Your task to perform on an android device: Search for razer deathadder on amazon.com, select the first entry, and add it to the cart. Image 0: 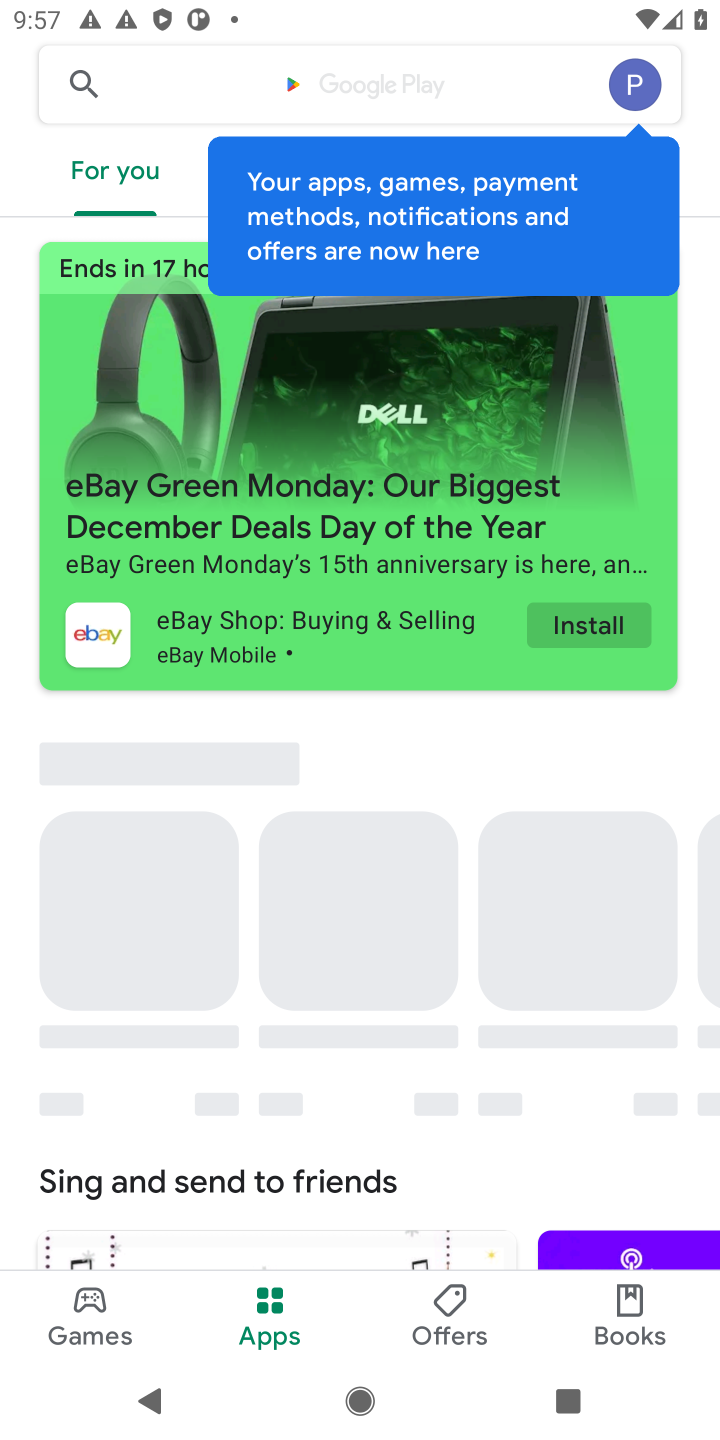
Step 0: press home button
Your task to perform on an android device: Search for razer deathadder on amazon.com, select the first entry, and add it to the cart. Image 1: 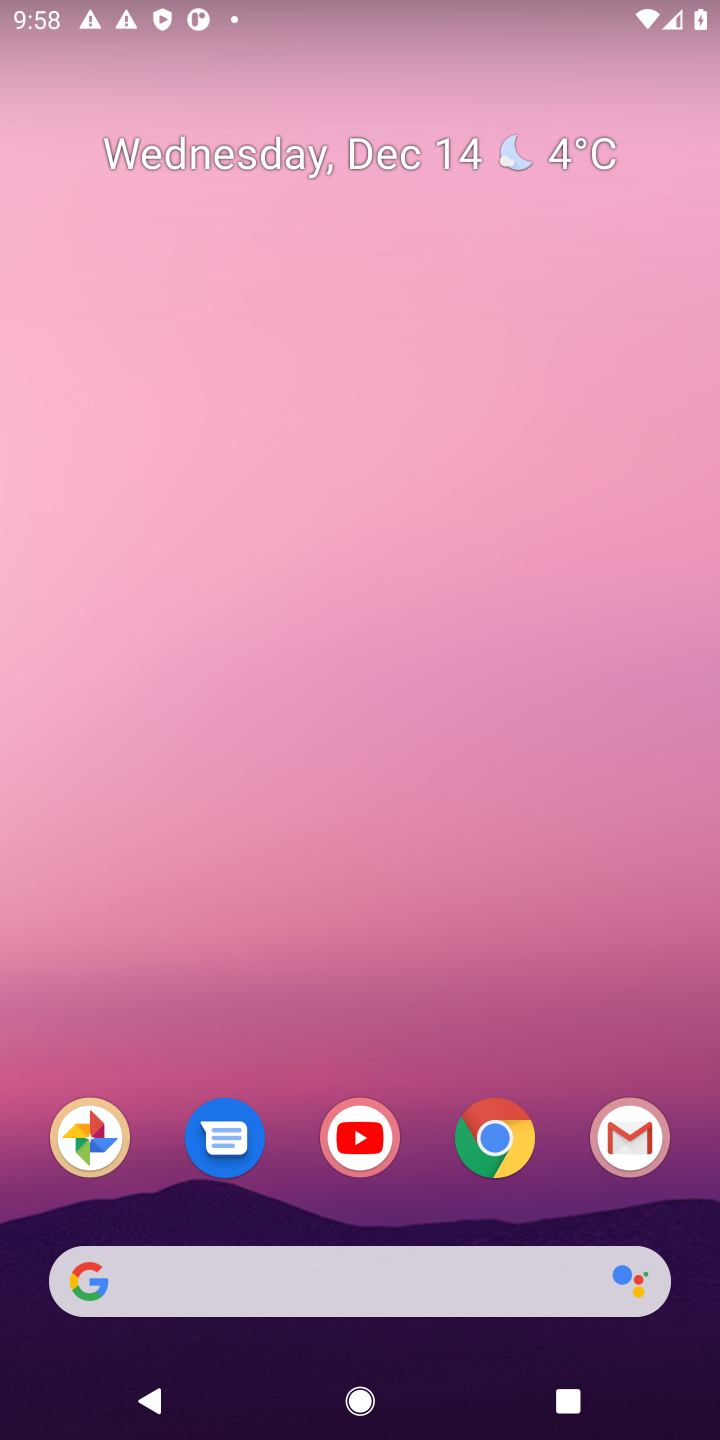
Step 1: click (483, 1143)
Your task to perform on an android device: Search for razer deathadder on amazon.com, select the first entry, and add it to the cart. Image 2: 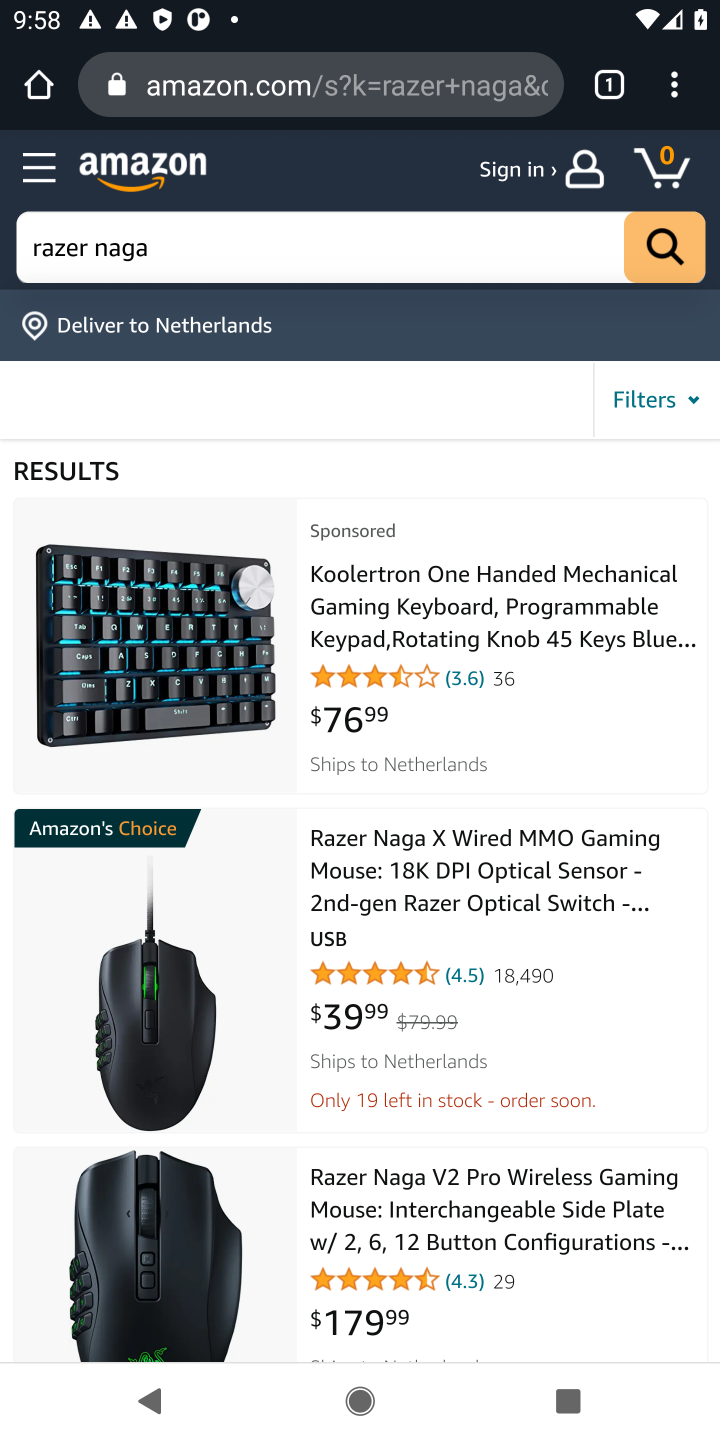
Step 2: click (165, 254)
Your task to perform on an android device: Search for razer deathadder on amazon.com, select the first entry, and add it to the cart. Image 3: 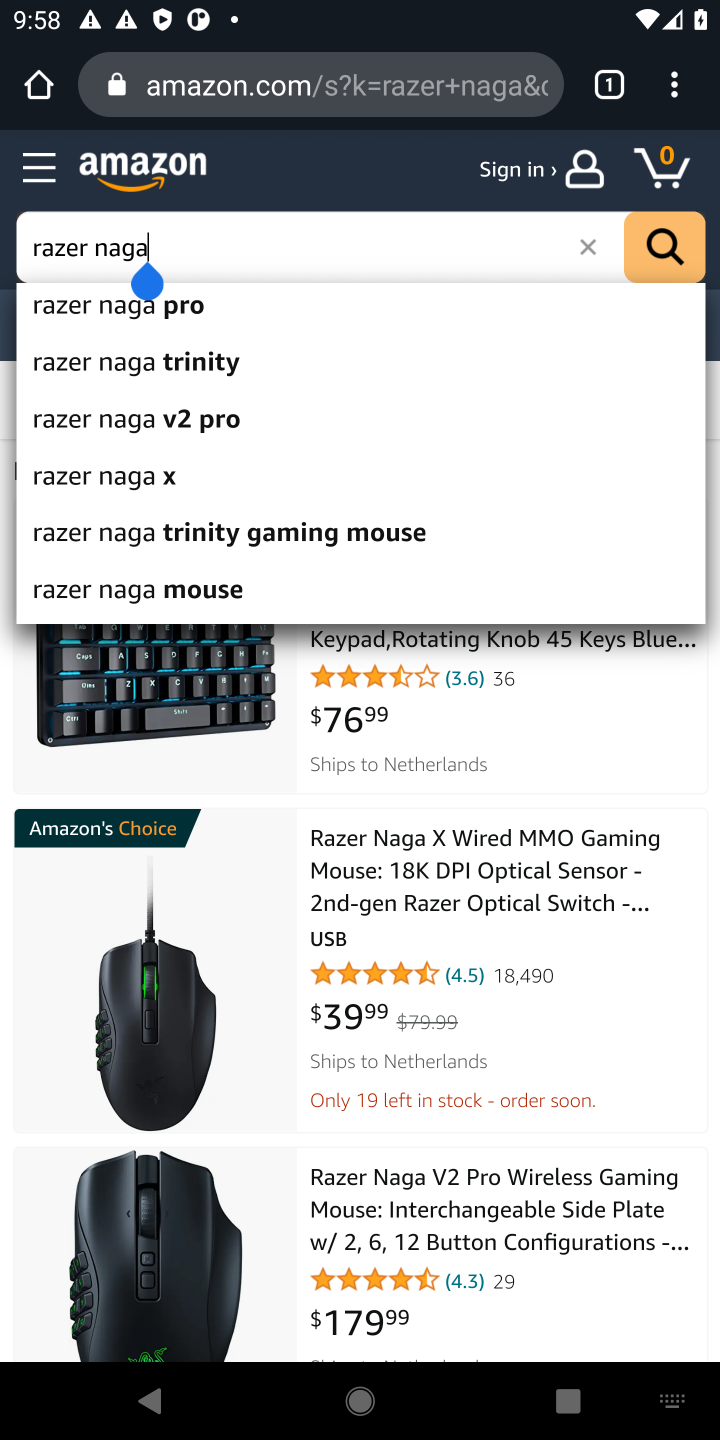
Step 3: click (581, 253)
Your task to perform on an android device: Search for razer deathadder on amazon.com, select the first entry, and add it to the cart. Image 4: 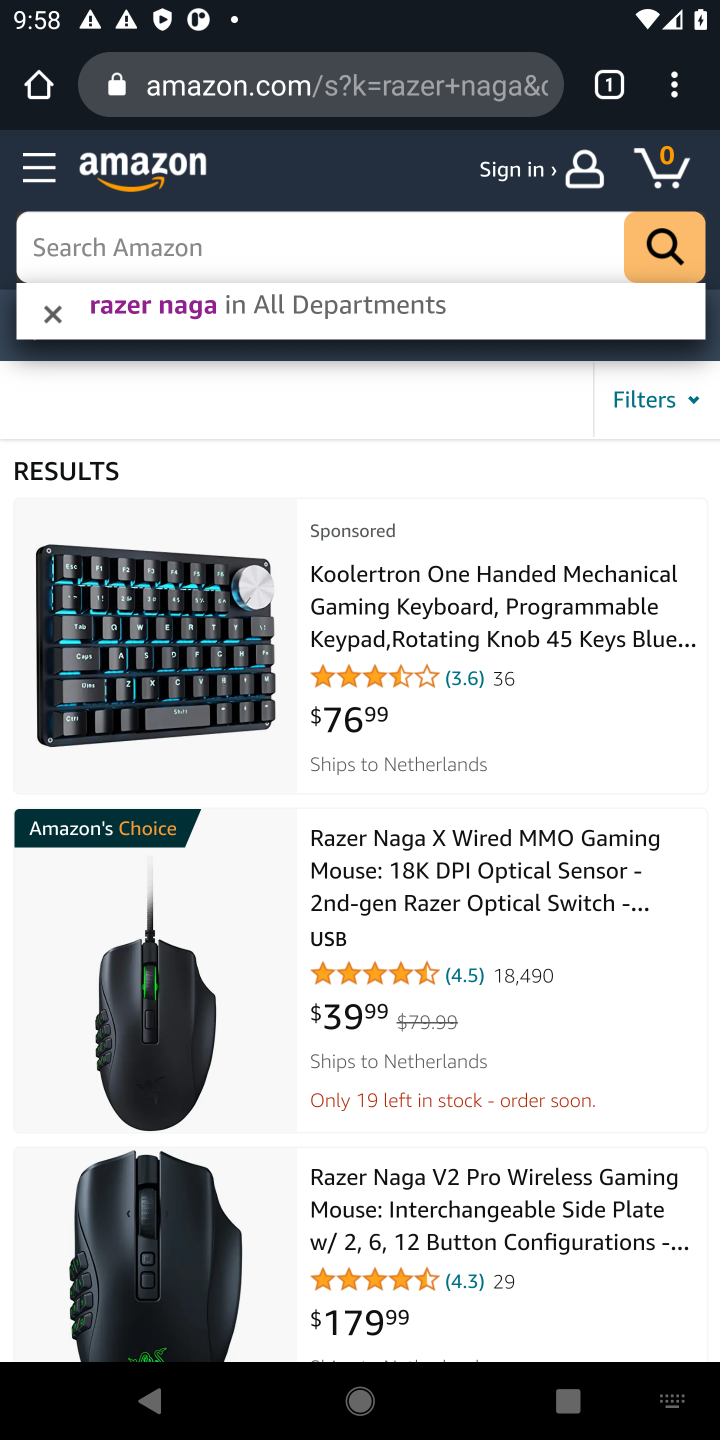
Step 4: type "razer deathadder "
Your task to perform on an android device: Search for razer deathadder on amazon.com, select the first entry, and add it to the cart. Image 5: 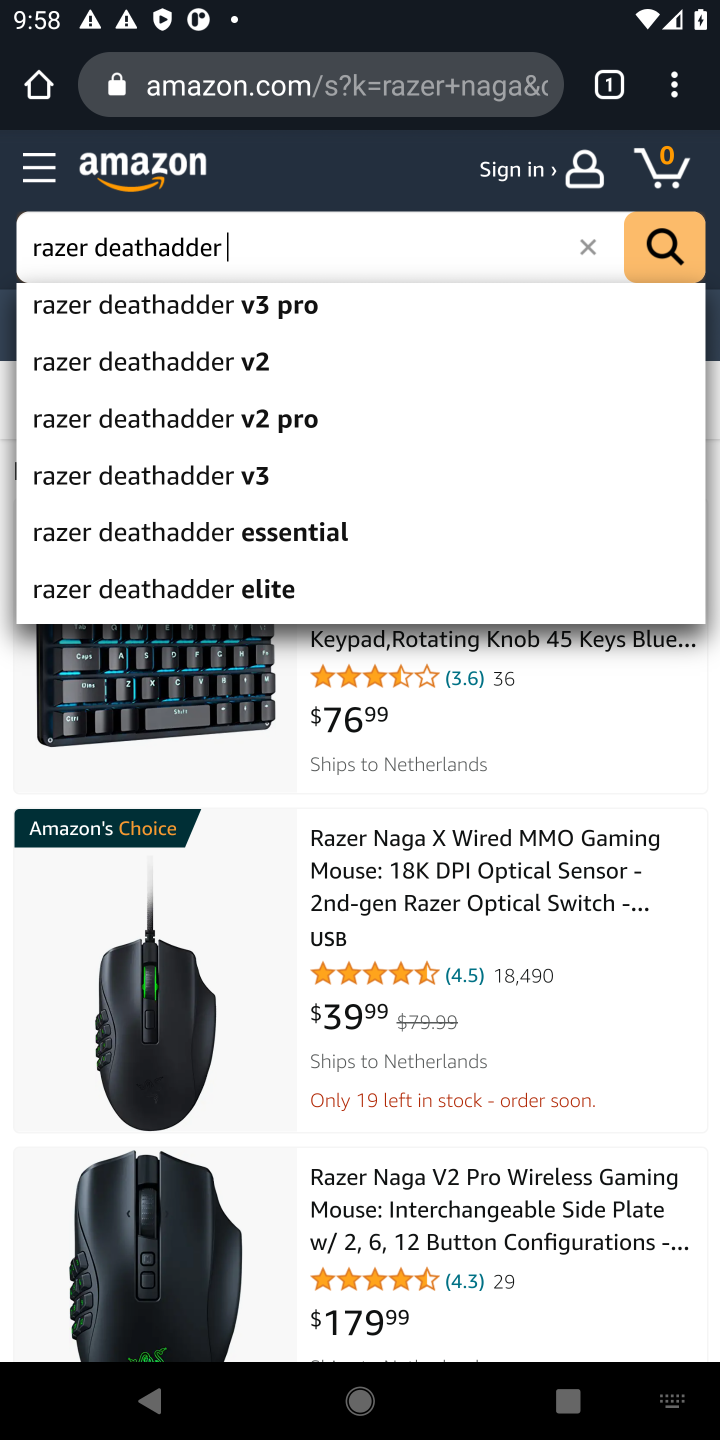
Step 5: click (659, 251)
Your task to perform on an android device: Search for razer deathadder on amazon.com, select the first entry, and add it to the cart. Image 6: 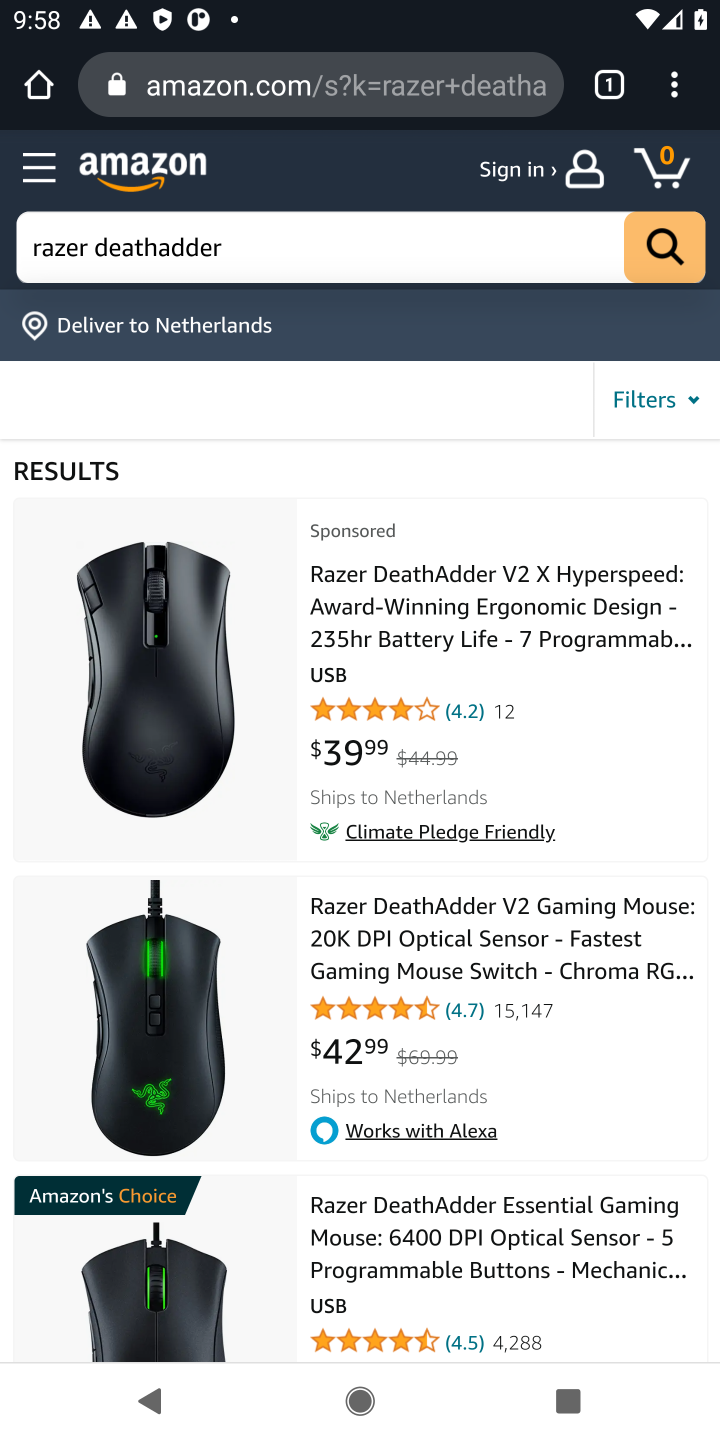
Step 6: click (365, 626)
Your task to perform on an android device: Search for razer deathadder on amazon.com, select the first entry, and add it to the cart. Image 7: 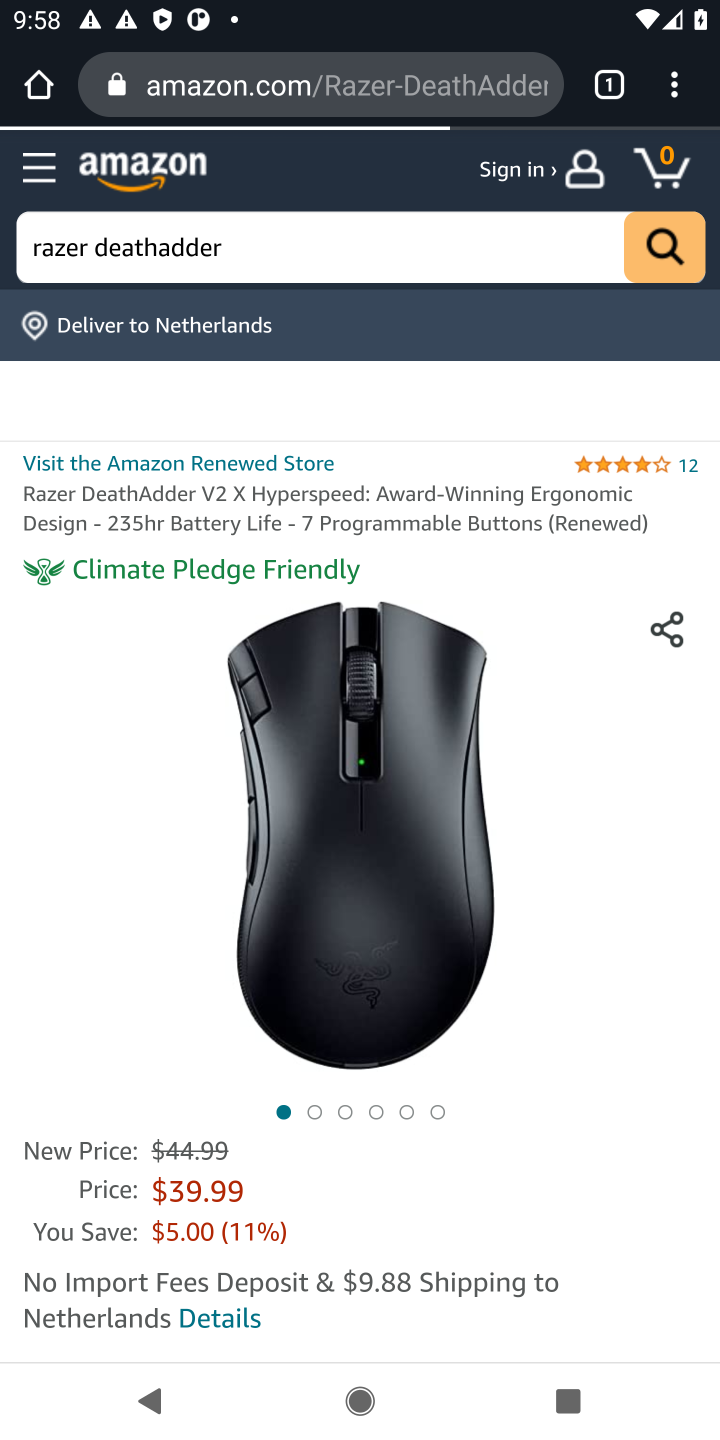
Step 7: drag from (305, 1011) to (322, 496)
Your task to perform on an android device: Search for razer deathadder on amazon.com, select the first entry, and add it to the cart. Image 8: 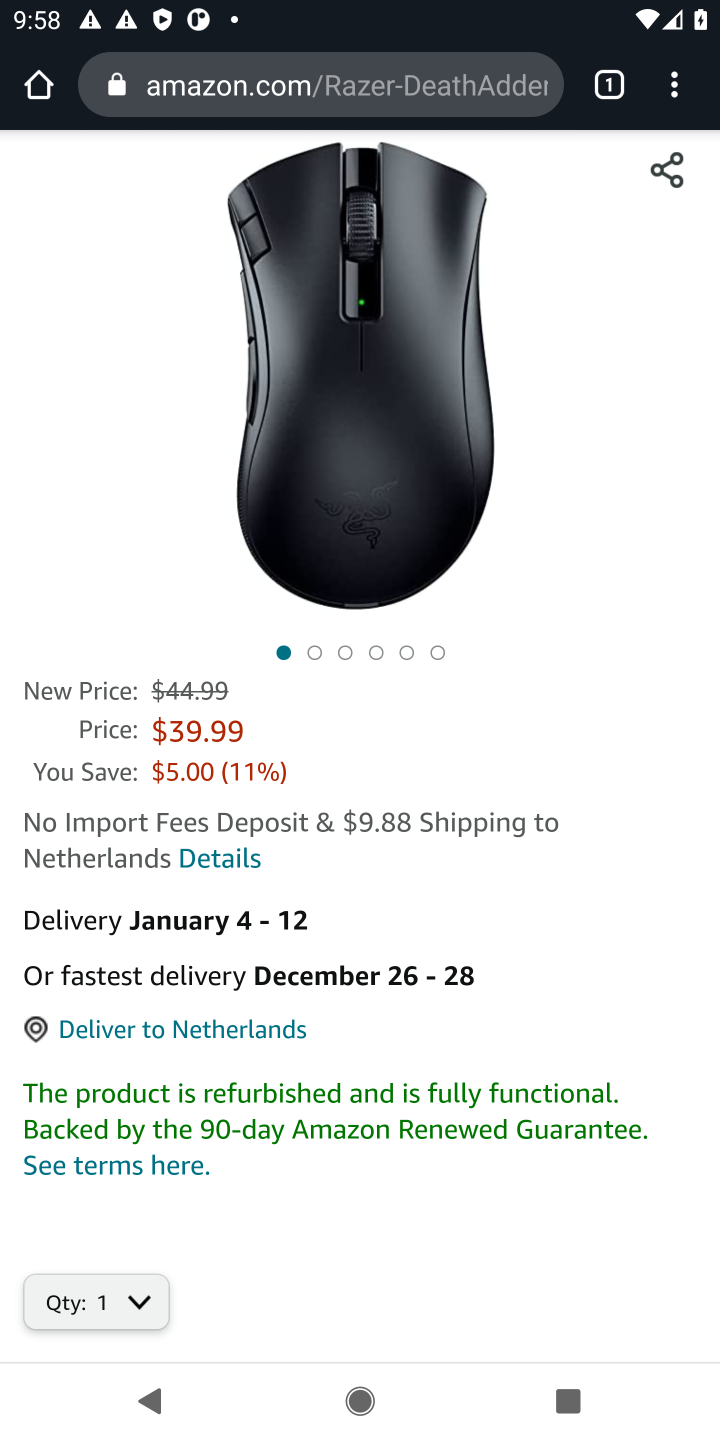
Step 8: drag from (345, 1030) to (362, 420)
Your task to perform on an android device: Search for razer deathadder on amazon.com, select the first entry, and add it to the cart. Image 9: 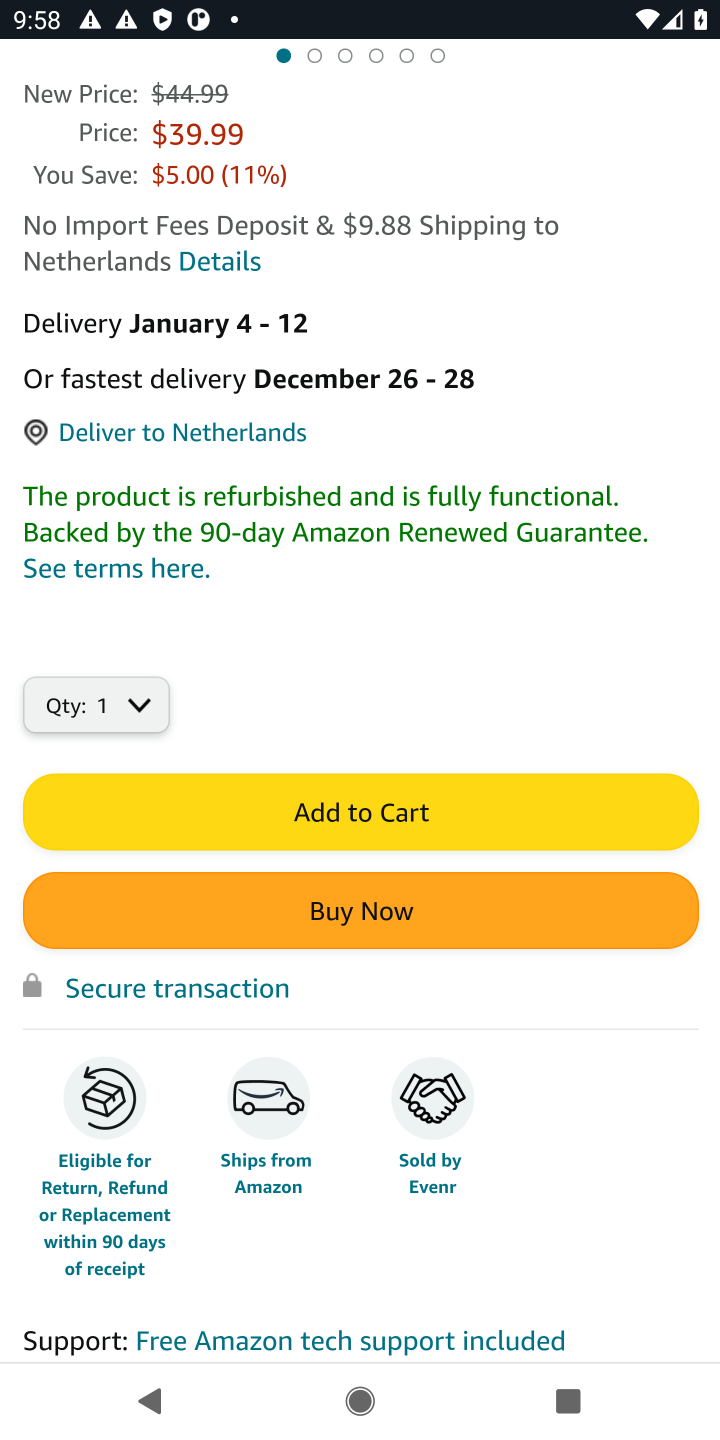
Step 9: click (328, 812)
Your task to perform on an android device: Search for razer deathadder on amazon.com, select the first entry, and add it to the cart. Image 10: 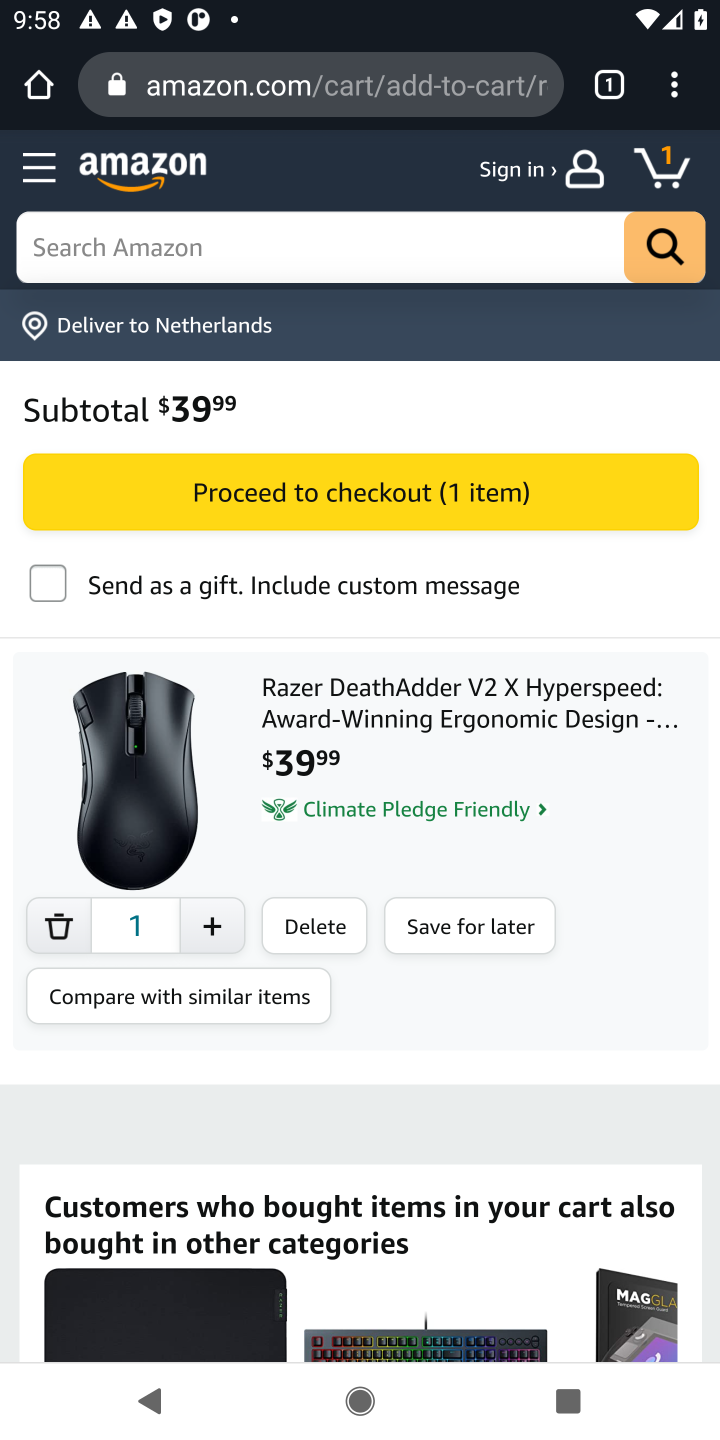
Step 10: task complete